Your task to perform on an android device: Open Google Maps Image 0: 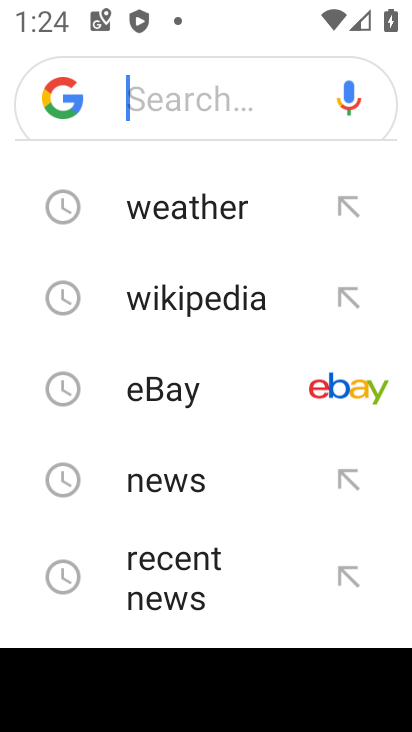
Step 0: press back button
Your task to perform on an android device: Open Google Maps Image 1: 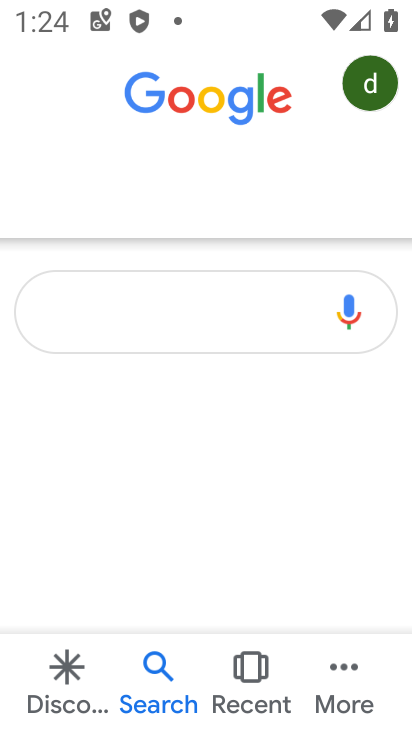
Step 1: press back button
Your task to perform on an android device: Open Google Maps Image 2: 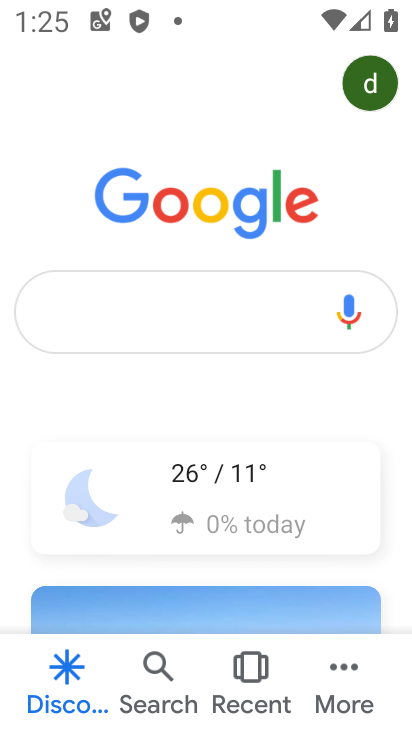
Step 2: press back button
Your task to perform on an android device: Open Google Maps Image 3: 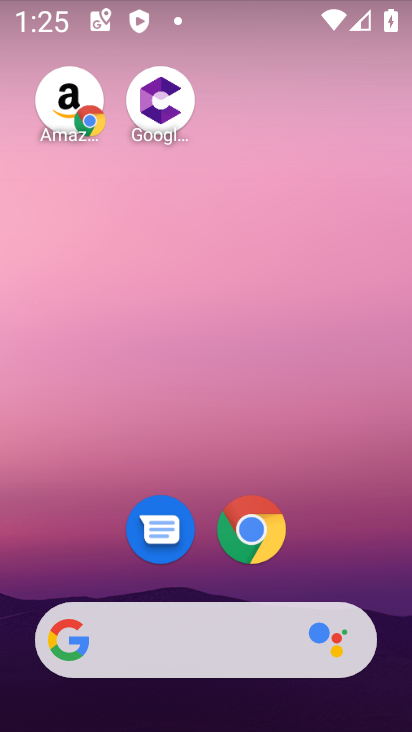
Step 3: drag from (357, 558) to (249, 39)
Your task to perform on an android device: Open Google Maps Image 4: 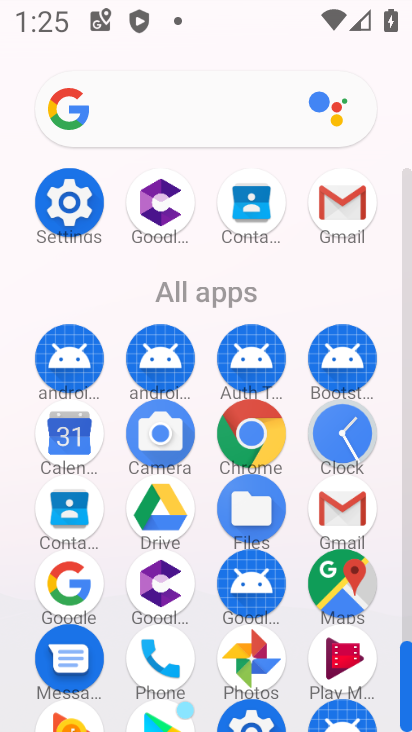
Step 4: click (345, 585)
Your task to perform on an android device: Open Google Maps Image 5: 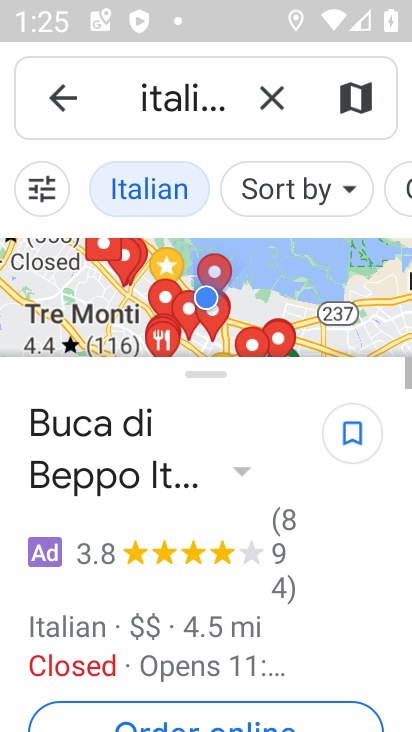
Step 5: task complete